Your task to perform on an android device: delete location history Image 0: 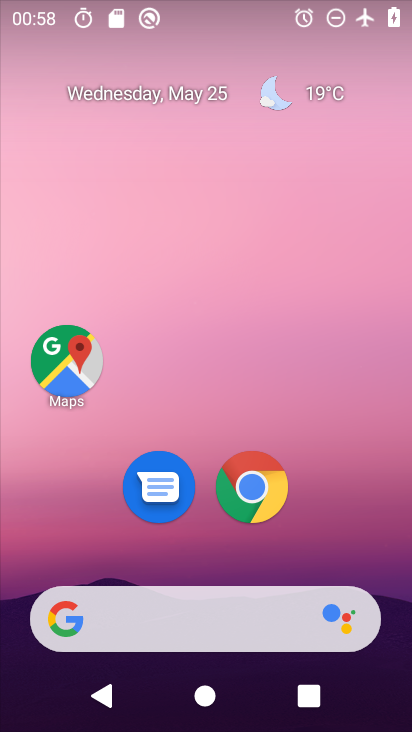
Step 0: click (62, 374)
Your task to perform on an android device: delete location history Image 1: 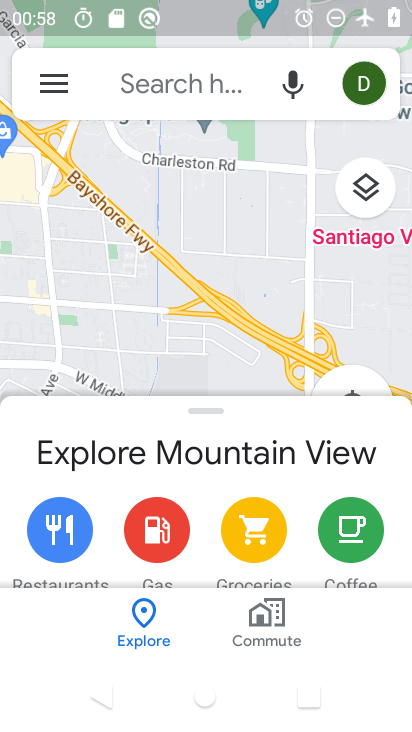
Step 1: click (55, 76)
Your task to perform on an android device: delete location history Image 2: 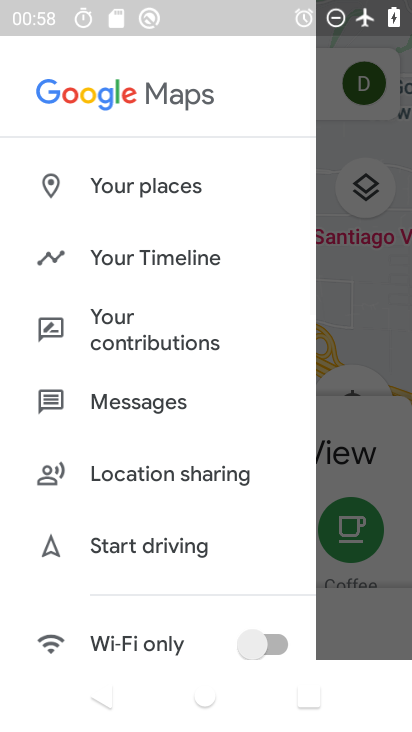
Step 2: click (120, 256)
Your task to perform on an android device: delete location history Image 3: 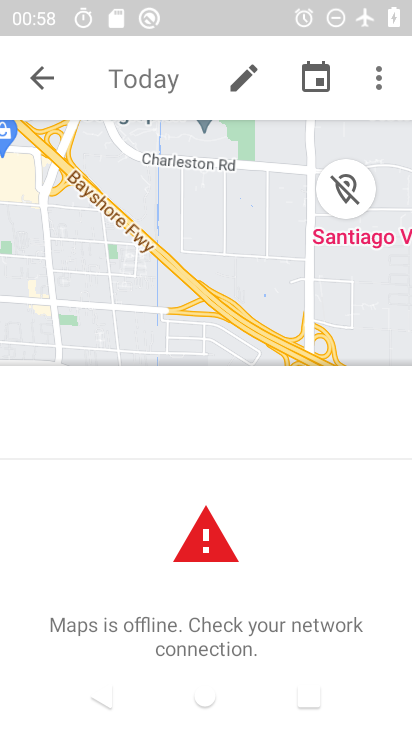
Step 3: click (378, 78)
Your task to perform on an android device: delete location history Image 4: 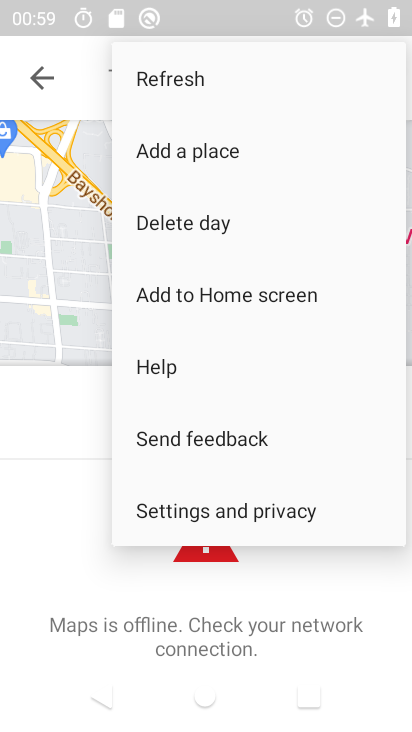
Step 4: click (182, 513)
Your task to perform on an android device: delete location history Image 5: 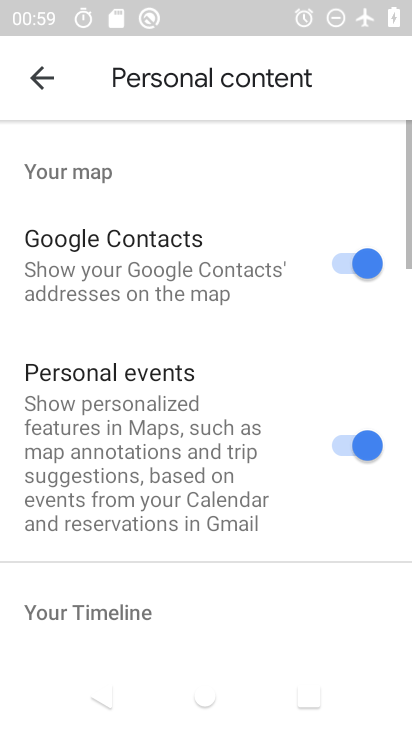
Step 5: drag from (182, 514) to (207, 22)
Your task to perform on an android device: delete location history Image 6: 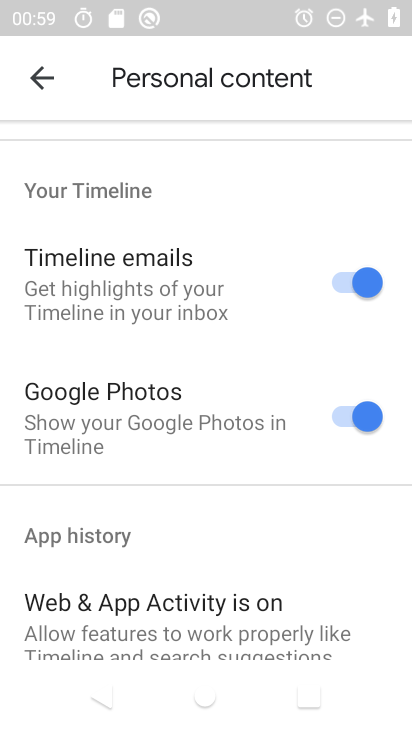
Step 6: drag from (162, 485) to (156, 98)
Your task to perform on an android device: delete location history Image 7: 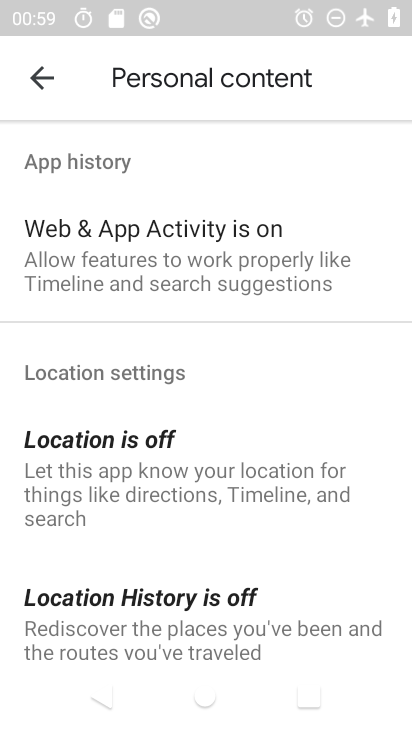
Step 7: drag from (138, 513) to (138, 158)
Your task to perform on an android device: delete location history Image 8: 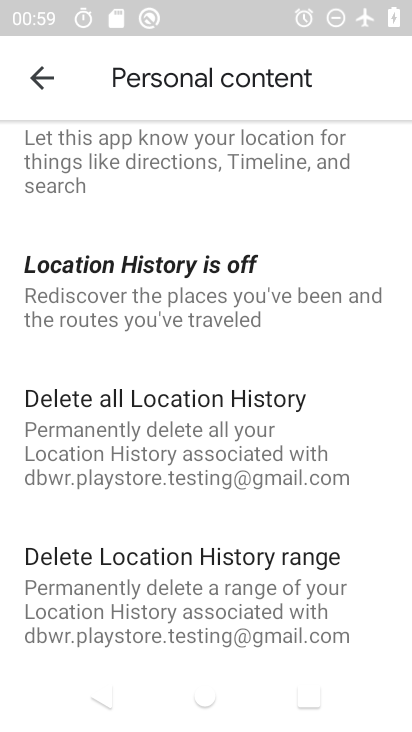
Step 8: click (116, 429)
Your task to perform on an android device: delete location history Image 9: 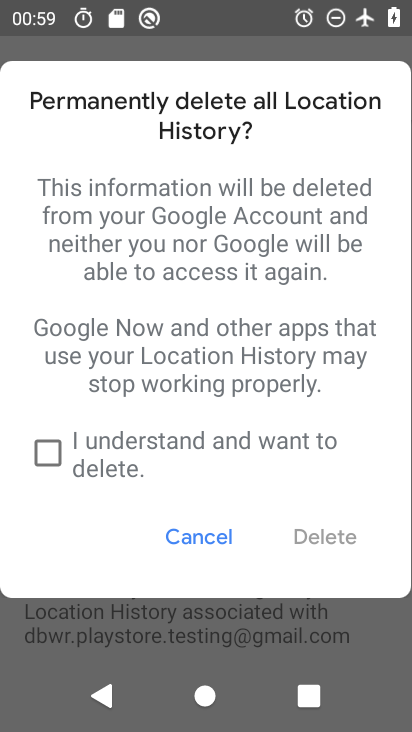
Step 9: click (53, 449)
Your task to perform on an android device: delete location history Image 10: 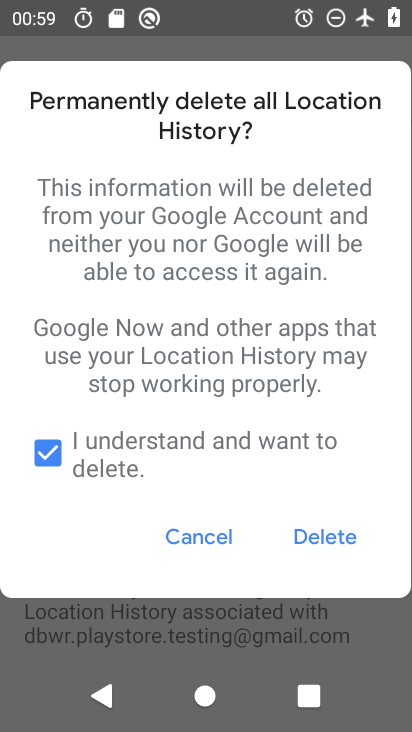
Step 10: click (302, 538)
Your task to perform on an android device: delete location history Image 11: 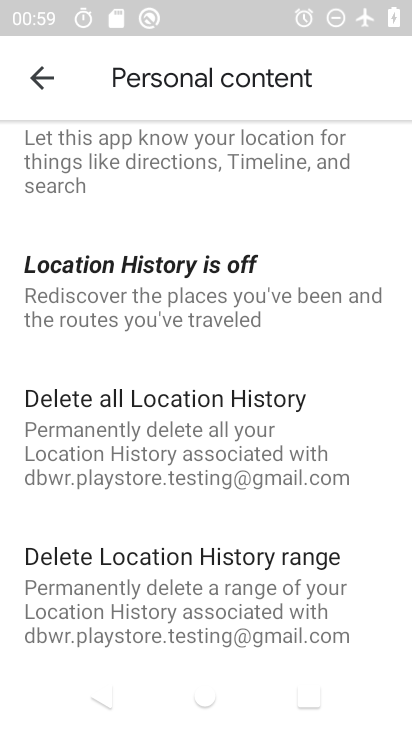
Step 11: task complete